Your task to perform on an android device: turn on showing notifications on the lock screen Image 0: 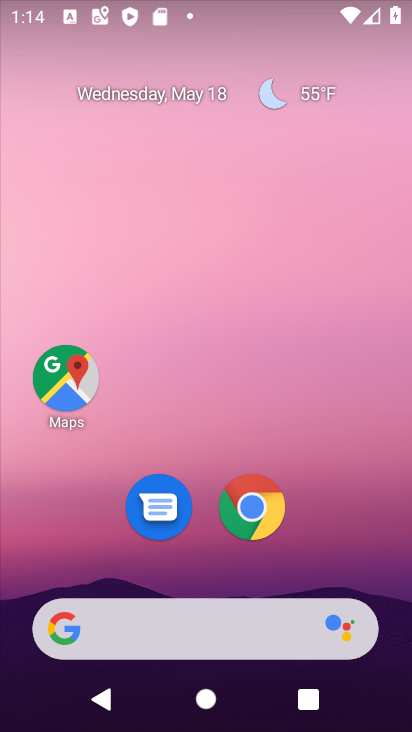
Step 0: drag from (399, 590) to (355, 102)
Your task to perform on an android device: turn on showing notifications on the lock screen Image 1: 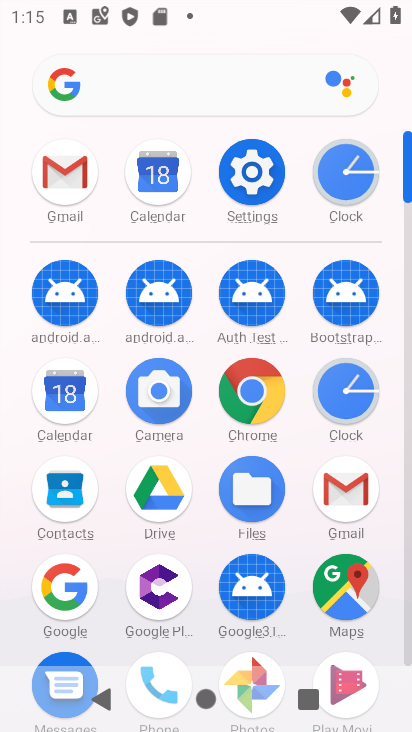
Step 1: click (409, 650)
Your task to perform on an android device: turn on showing notifications on the lock screen Image 2: 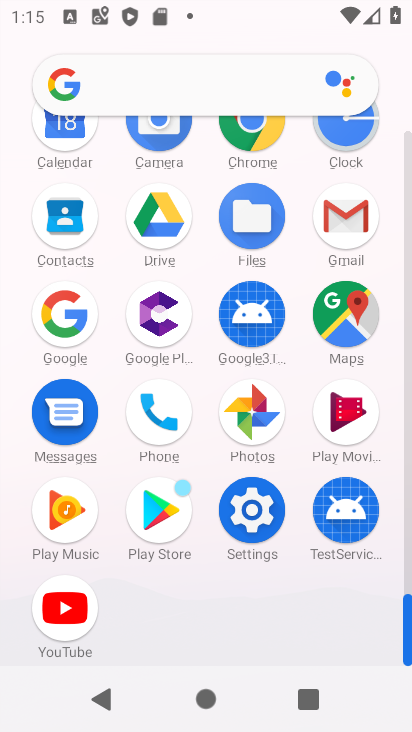
Step 2: click (255, 511)
Your task to perform on an android device: turn on showing notifications on the lock screen Image 3: 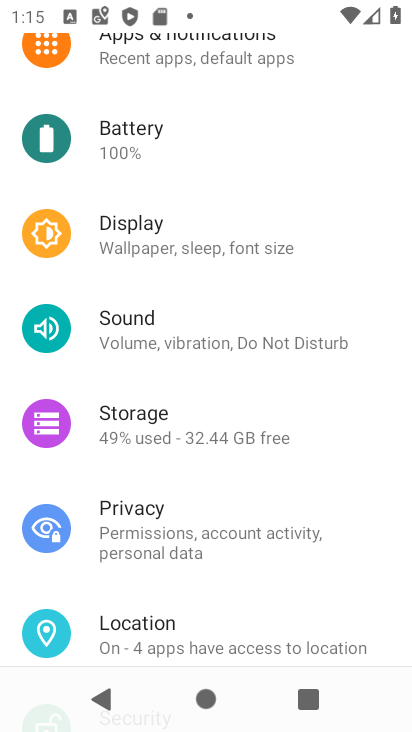
Step 3: drag from (273, 167) to (266, 431)
Your task to perform on an android device: turn on showing notifications on the lock screen Image 4: 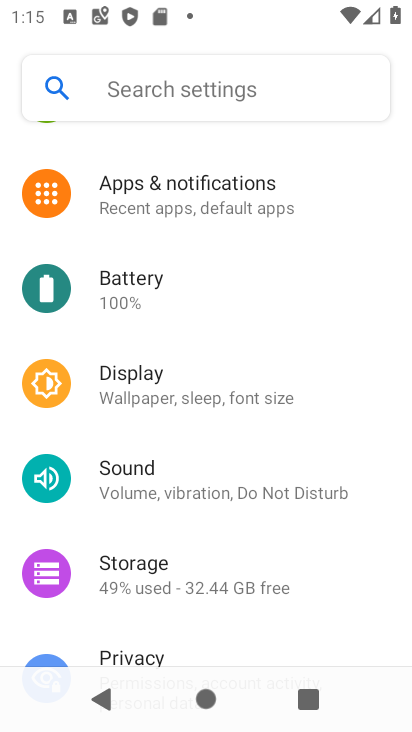
Step 4: click (172, 201)
Your task to perform on an android device: turn on showing notifications on the lock screen Image 5: 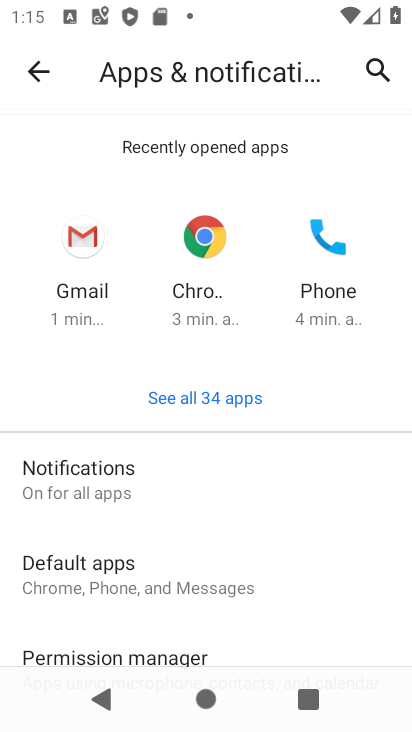
Step 5: click (112, 493)
Your task to perform on an android device: turn on showing notifications on the lock screen Image 6: 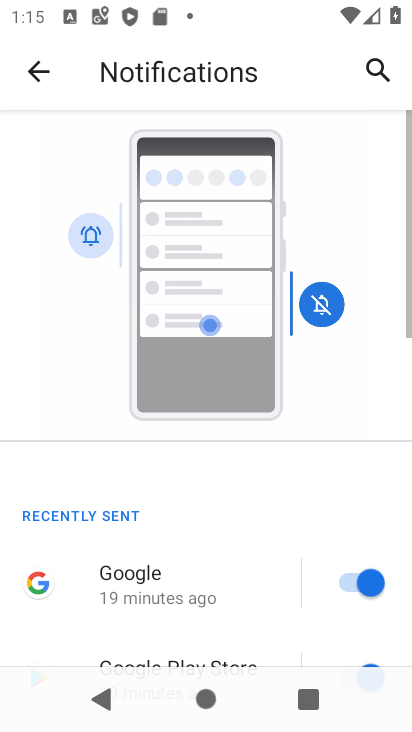
Step 6: drag from (205, 592) to (170, 169)
Your task to perform on an android device: turn on showing notifications on the lock screen Image 7: 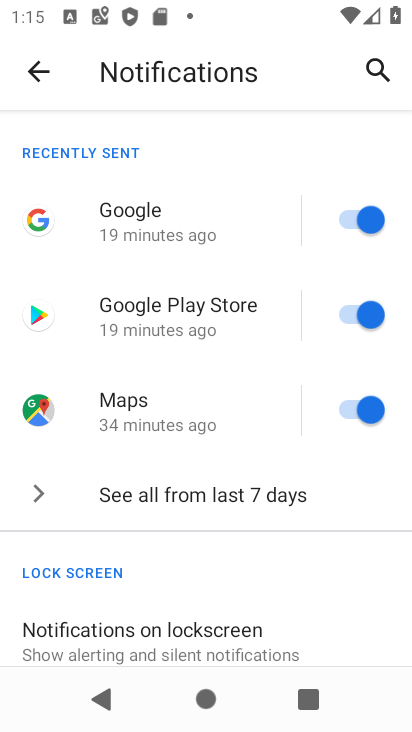
Step 7: drag from (247, 568) to (225, 222)
Your task to perform on an android device: turn on showing notifications on the lock screen Image 8: 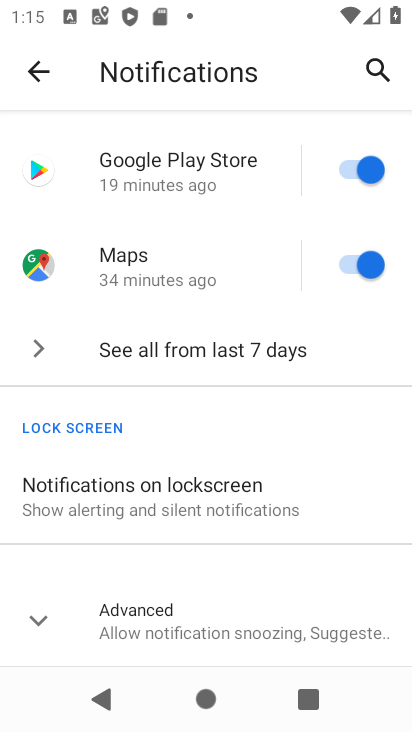
Step 8: click (125, 505)
Your task to perform on an android device: turn on showing notifications on the lock screen Image 9: 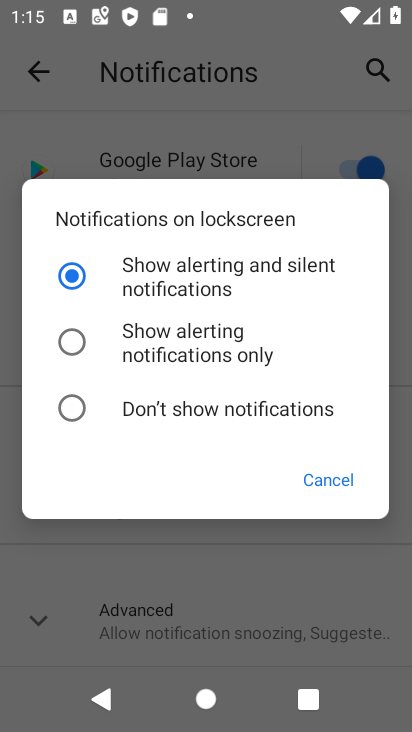
Step 9: task complete